Your task to perform on an android device: check android version Image 0: 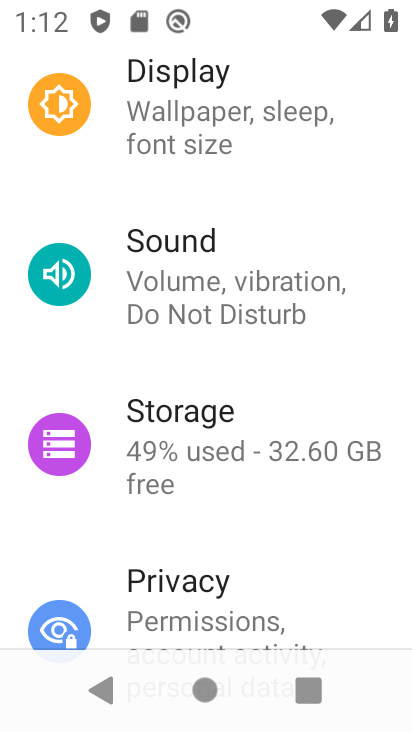
Step 0: press home button
Your task to perform on an android device: check android version Image 1: 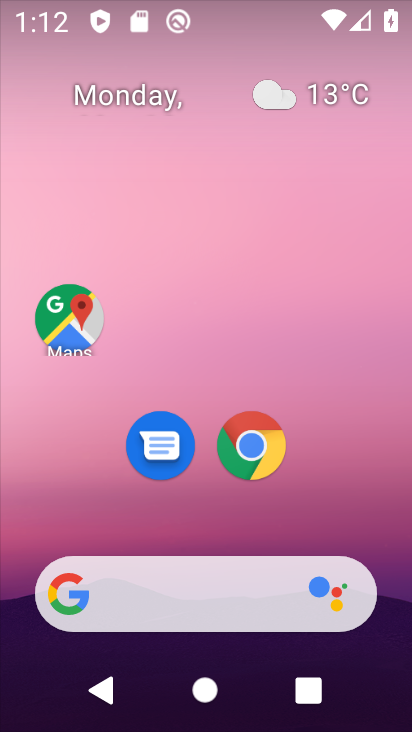
Step 1: drag from (276, 521) to (326, 155)
Your task to perform on an android device: check android version Image 2: 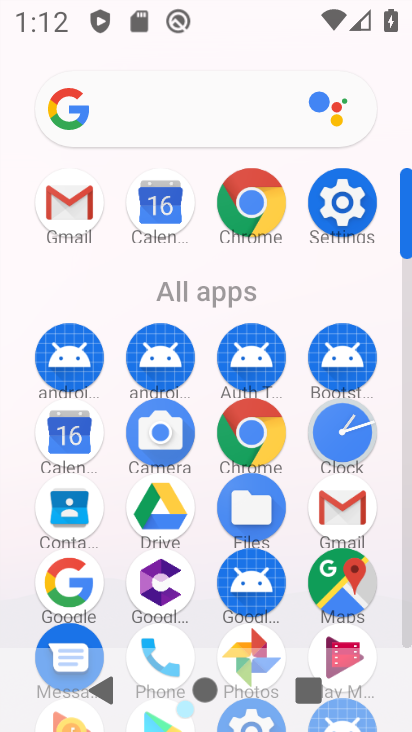
Step 2: click (336, 219)
Your task to perform on an android device: check android version Image 3: 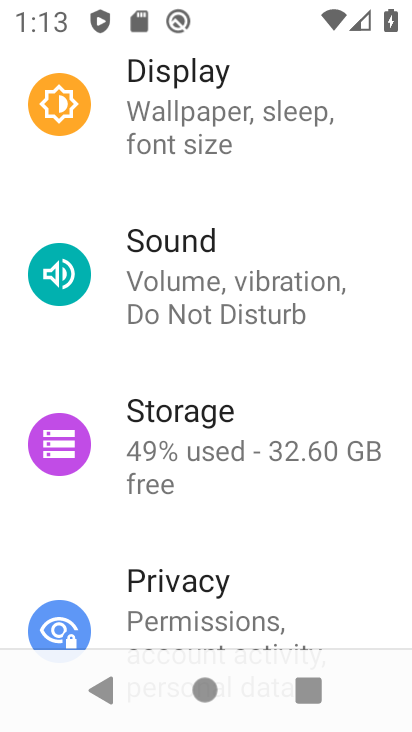
Step 3: drag from (206, 550) to (272, 48)
Your task to perform on an android device: check android version Image 4: 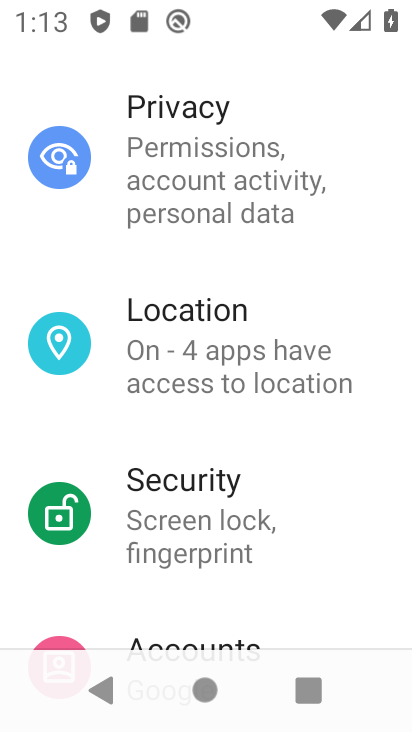
Step 4: drag from (179, 501) to (222, 62)
Your task to perform on an android device: check android version Image 5: 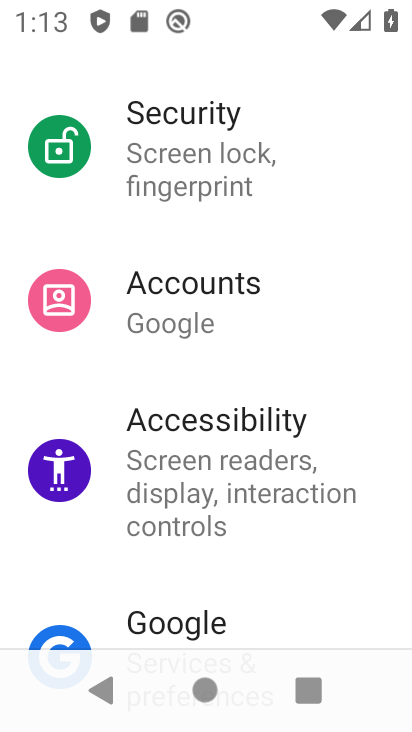
Step 5: drag from (216, 541) to (312, 88)
Your task to perform on an android device: check android version Image 6: 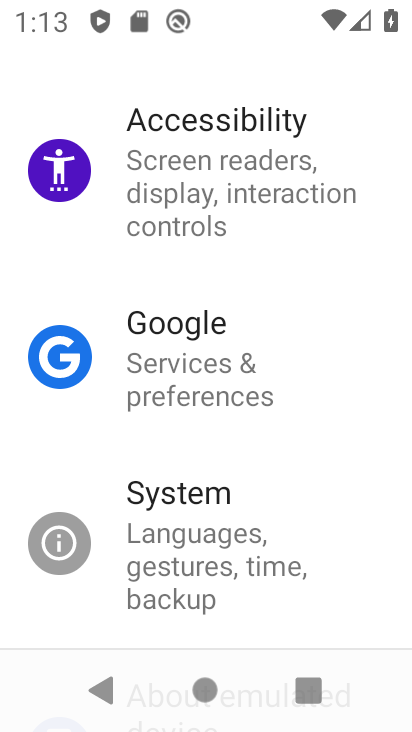
Step 6: drag from (238, 257) to (273, 55)
Your task to perform on an android device: check android version Image 7: 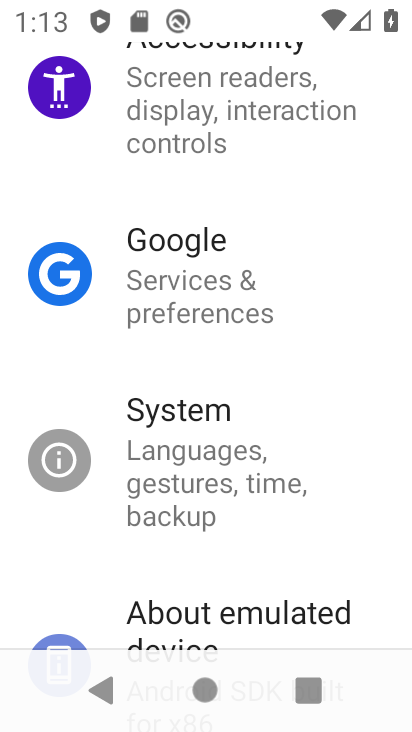
Step 7: drag from (168, 564) to (281, 112)
Your task to perform on an android device: check android version Image 8: 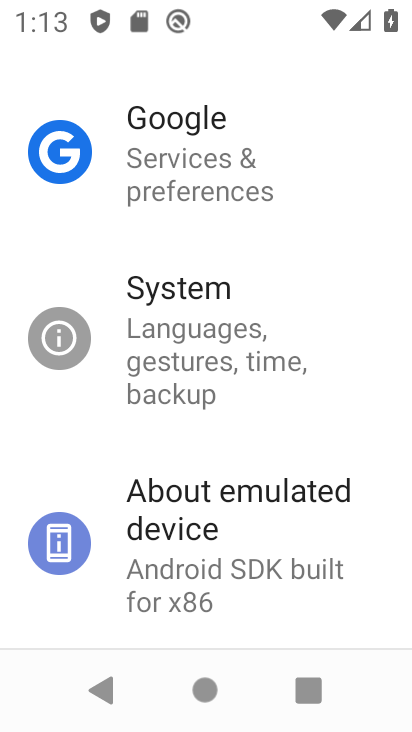
Step 8: click (194, 621)
Your task to perform on an android device: check android version Image 9: 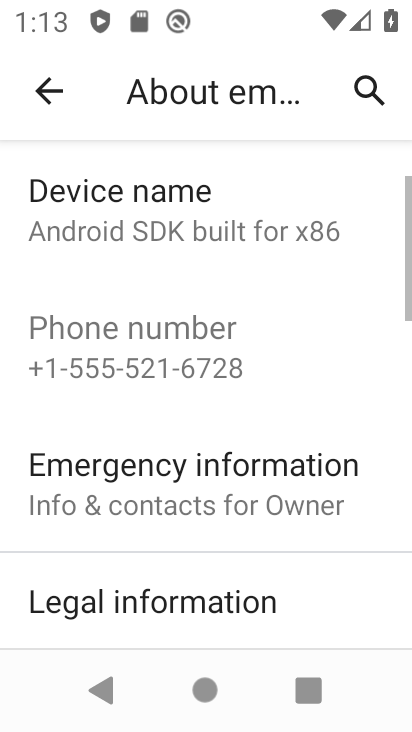
Step 9: drag from (198, 617) to (223, 212)
Your task to perform on an android device: check android version Image 10: 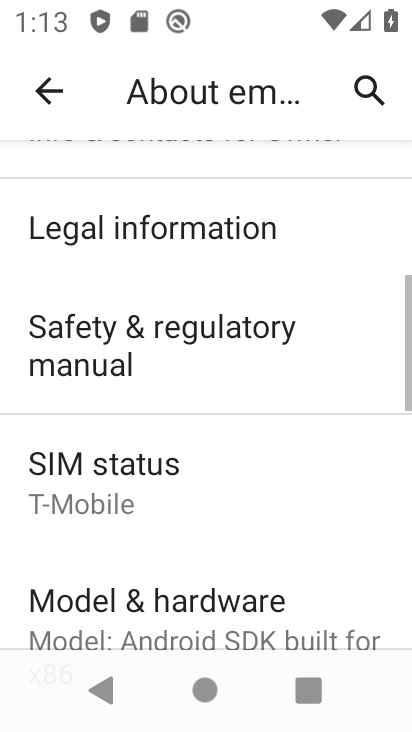
Step 10: drag from (181, 555) to (273, 32)
Your task to perform on an android device: check android version Image 11: 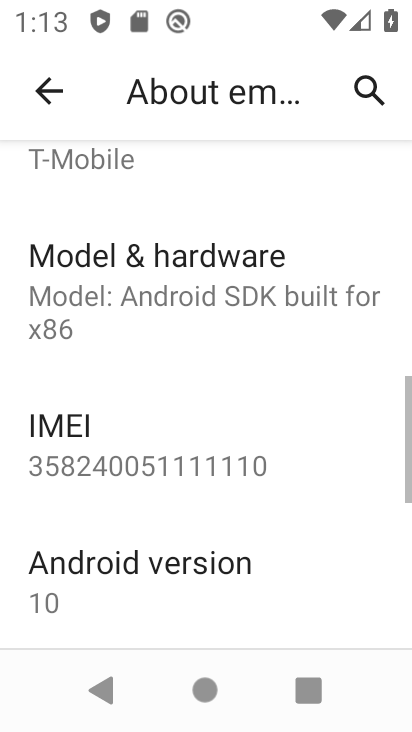
Step 11: drag from (209, 538) to (225, 172)
Your task to perform on an android device: check android version Image 12: 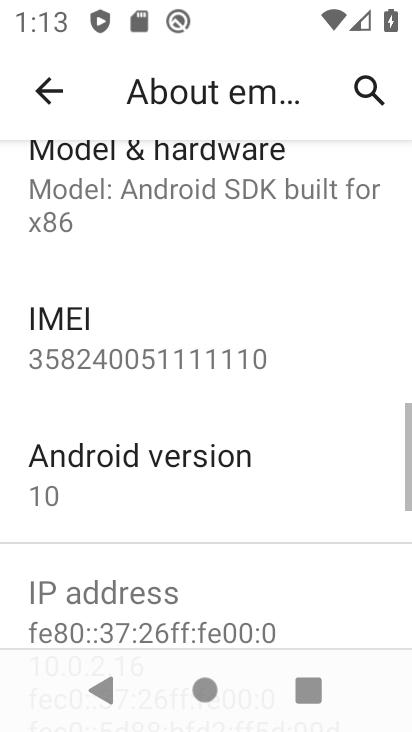
Step 12: click (82, 507)
Your task to perform on an android device: check android version Image 13: 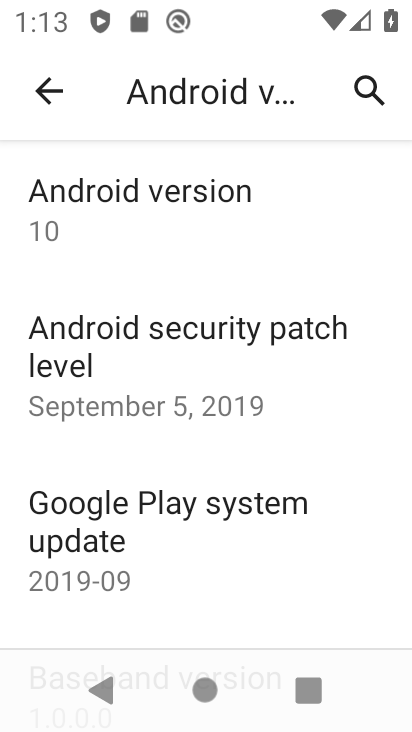
Step 13: task complete